Your task to perform on an android device: make emails show in primary in the gmail app Image 0: 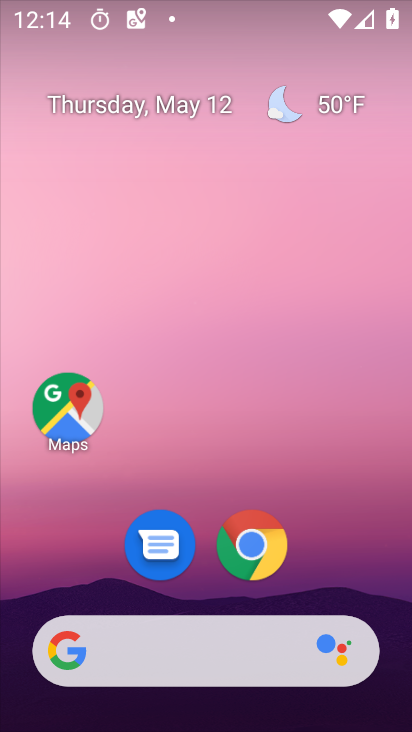
Step 0: drag from (166, 646) to (254, 86)
Your task to perform on an android device: make emails show in primary in the gmail app Image 1: 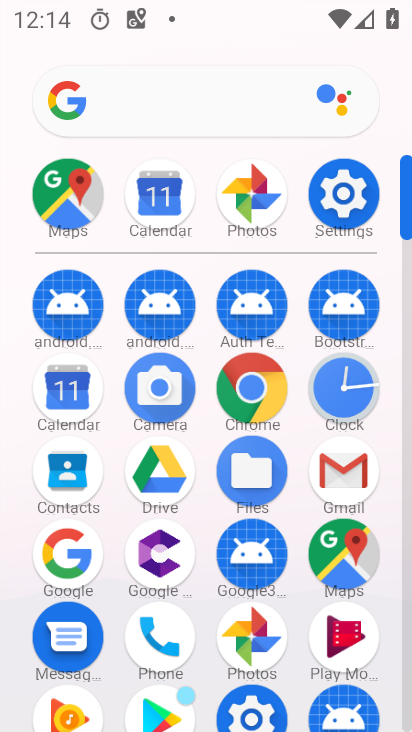
Step 1: click (343, 477)
Your task to perform on an android device: make emails show in primary in the gmail app Image 2: 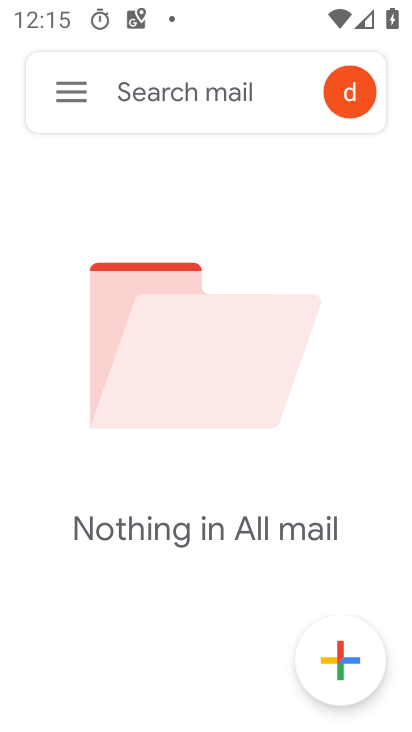
Step 2: click (72, 88)
Your task to perform on an android device: make emails show in primary in the gmail app Image 3: 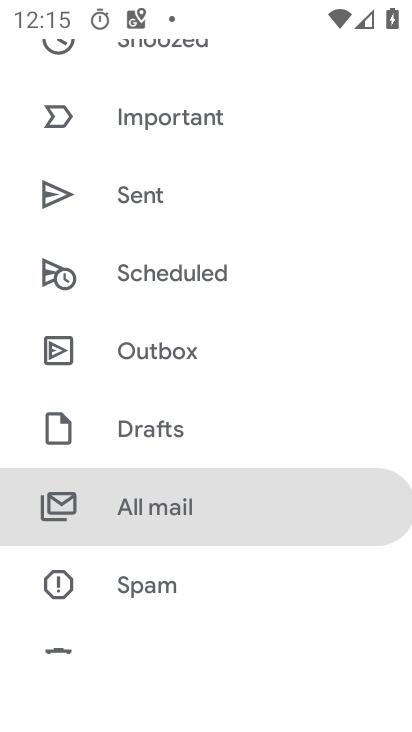
Step 3: drag from (145, 625) to (142, 188)
Your task to perform on an android device: make emails show in primary in the gmail app Image 4: 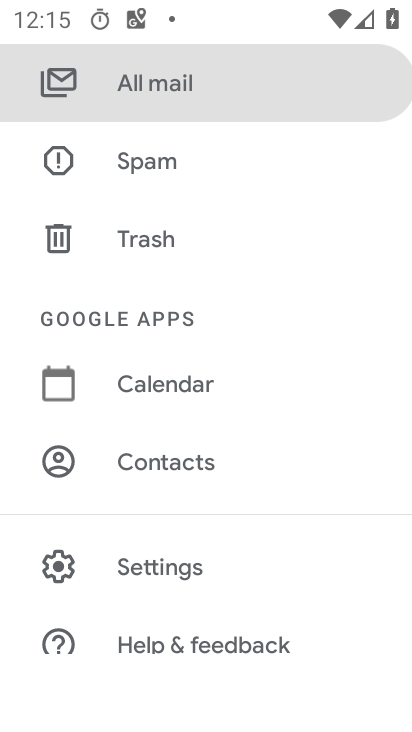
Step 4: click (165, 575)
Your task to perform on an android device: make emails show in primary in the gmail app Image 5: 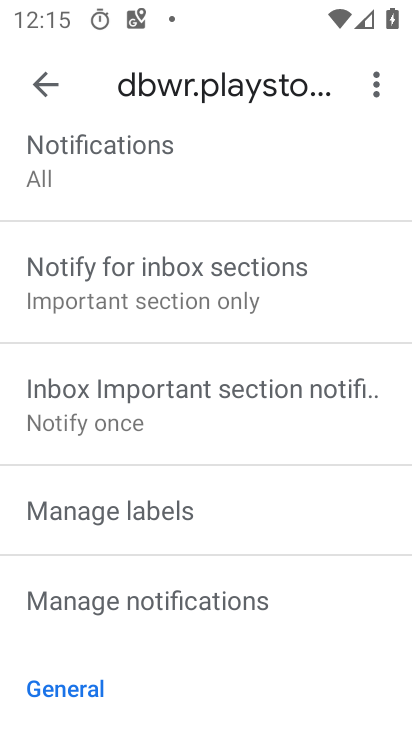
Step 5: drag from (220, 203) to (255, 705)
Your task to perform on an android device: make emails show in primary in the gmail app Image 6: 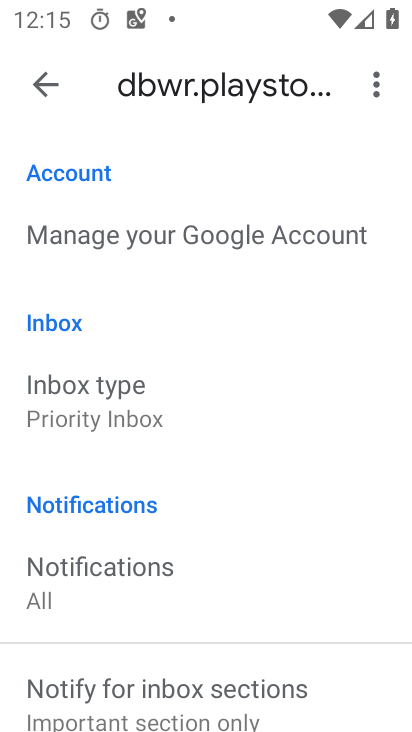
Step 6: click (135, 405)
Your task to perform on an android device: make emails show in primary in the gmail app Image 7: 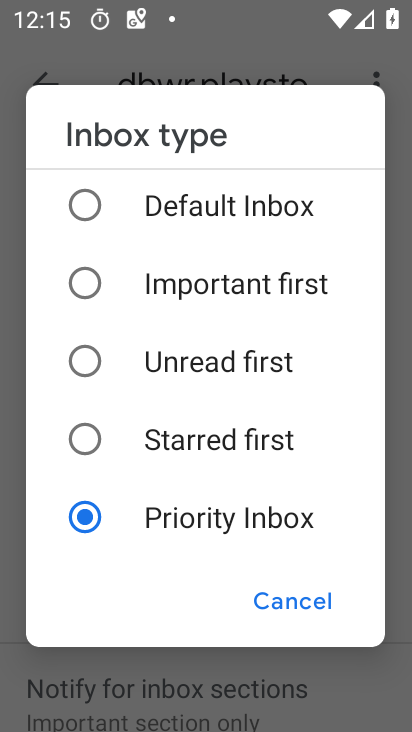
Step 7: click (160, 215)
Your task to perform on an android device: make emails show in primary in the gmail app Image 8: 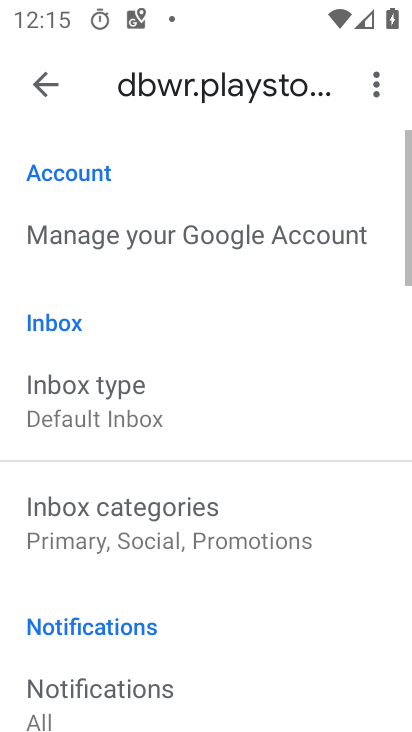
Step 8: click (127, 509)
Your task to perform on an android device: make emails show in primary in the gmail app Image 9: 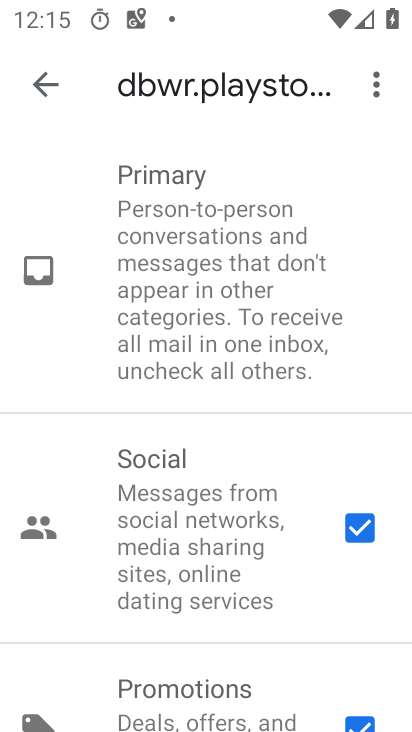
Step 9: click (362, 522)
Your task to perform on an android device: make emails show in primary in the gmail app Image 10: 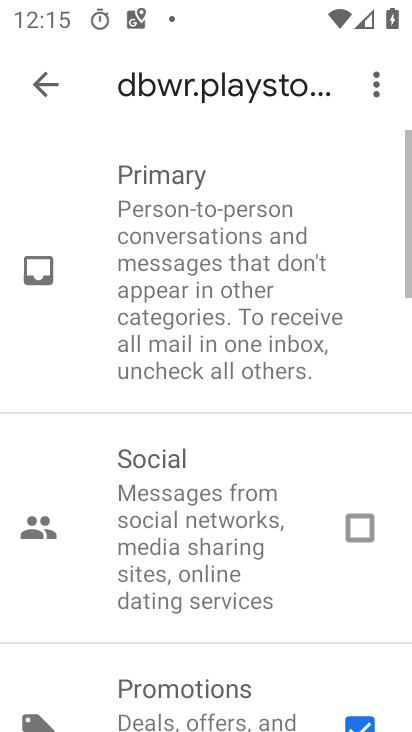
Step 10: drag from (270, 531) to (210, 76)
Your task to perform on an android device: make emails show in primary in the gmail app Image 11: 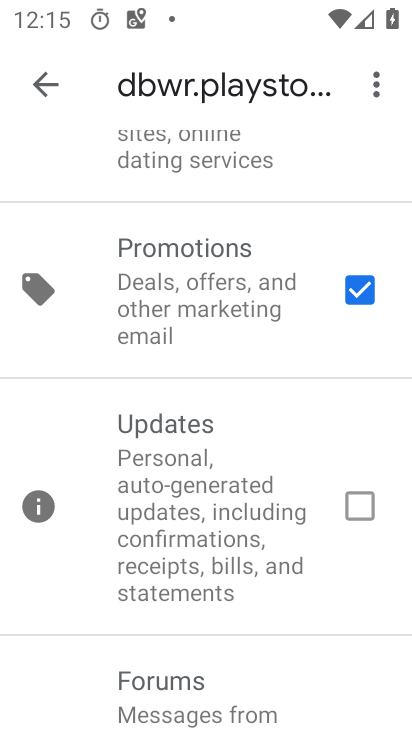
Step 11: click (357, 288)
Your task to perform on an android device: make emails show in primary in the gmail app Image 12: 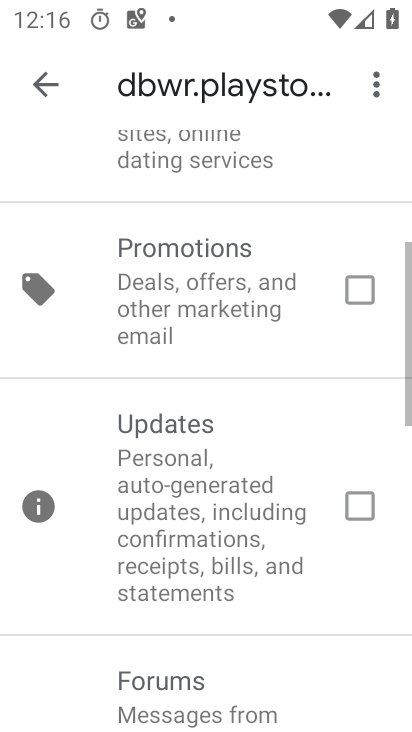
Step 12: task complete